Your task to perform on an android device: turn on notifications settings in the gmail app Image 0: 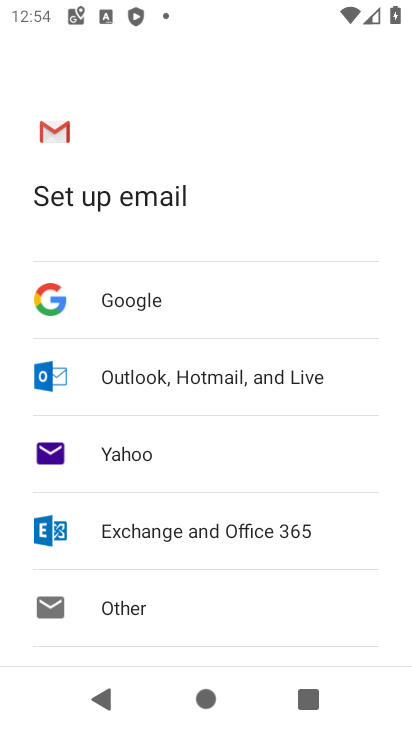
Step 0: press home button
Your task to perform on an android device: turn on notifications settings in the gmail app Image 1: 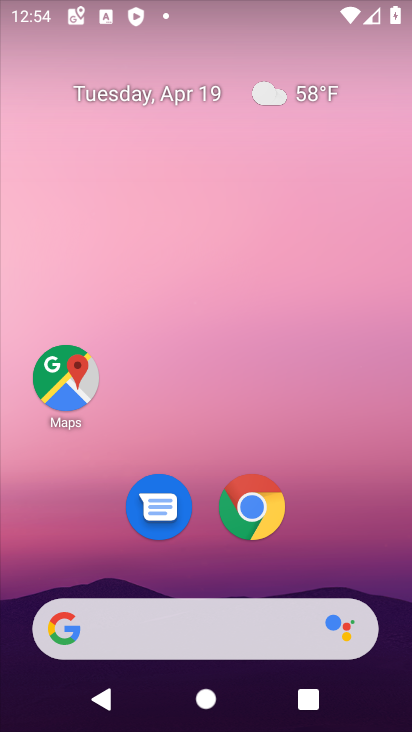
Step 1: drag from (187, 566) to (257, 81)
Your task to perform on an android device: turn on notifications settings in the gmail app Image 2: 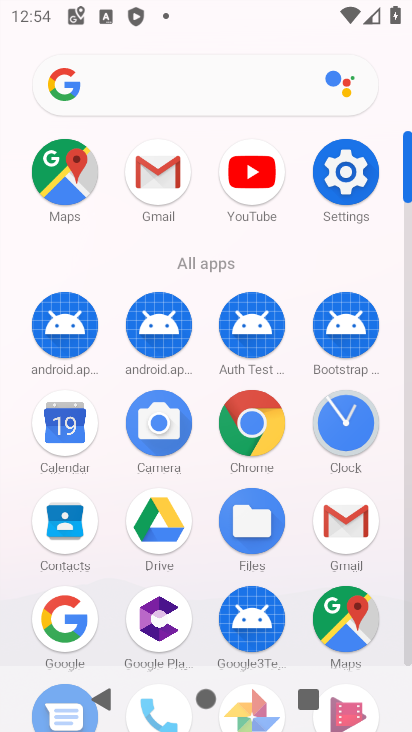
Step 2: click (344, 531)
Your task to perform on an android device: turn on notifications settings in the gmail app Image 3: 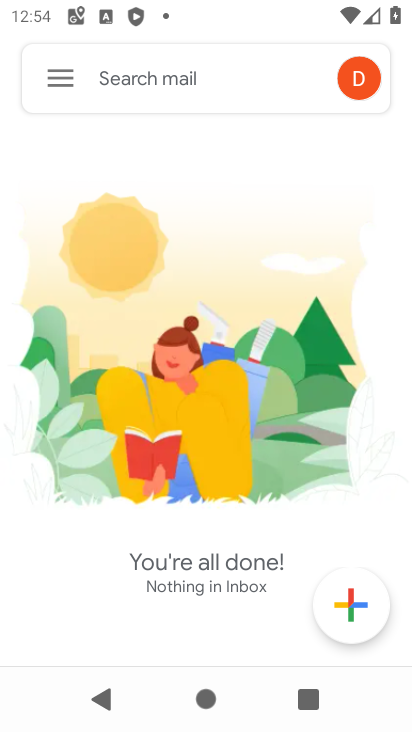
Step 3: click (59, 86)
Your task to perform on an android device: turn on notifications settings in the gmail app Image 4: 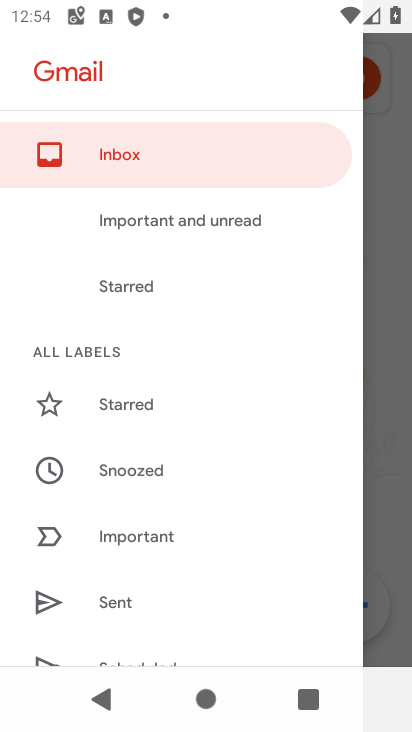
Step 4: drag from (193, 586) to (197, 78)
Your task to perform on an android device: turn on notifications settings in the gmail app Image 5: 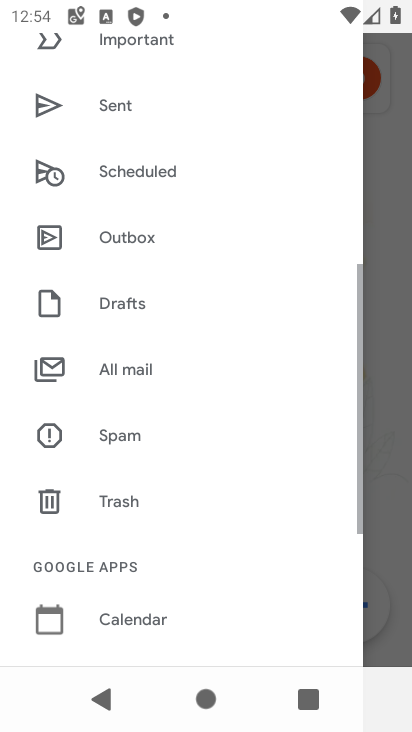
Step 5: drag from (210, 391) to (210, 239)
Your task to perform on an android device: turn on notifications settings in the gmail app Image 6: 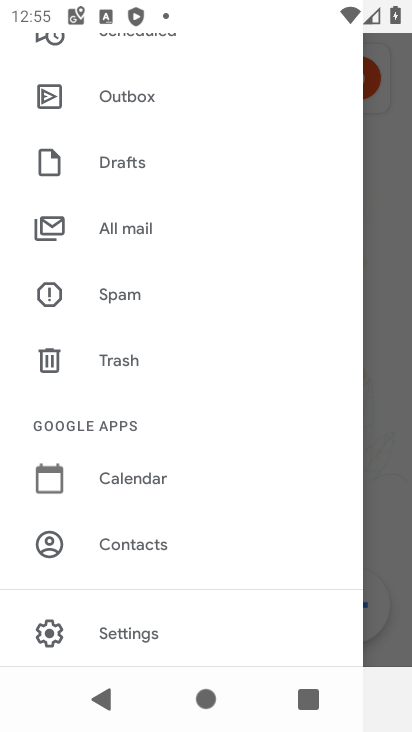
Step 6: click (164, 625)
Your task to perform on an android device: turn on notifications settings in the gmail app Image 7: 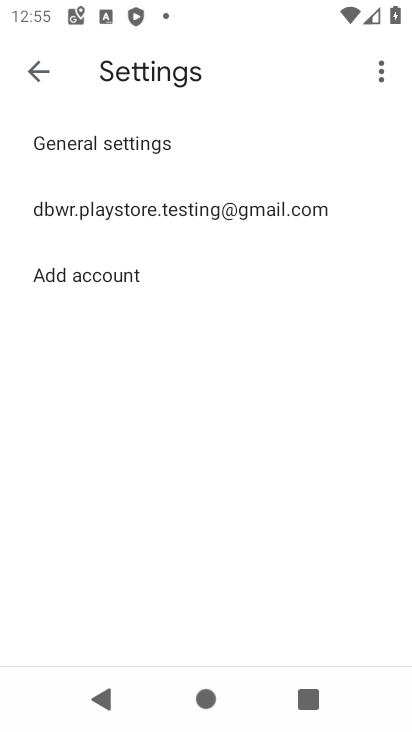
Step 7: click (152, 213)
Your task to perform on an android device: turn on notifications settings in the gmail app Image 8: 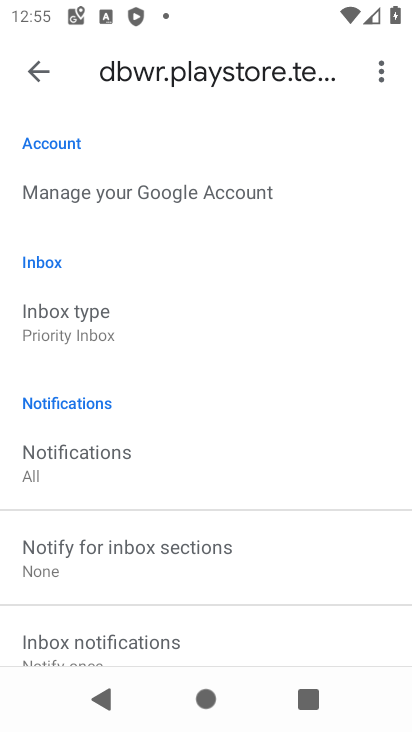
Step 8: drag from (154, 597) to (181, 431)
Your task to perform on an android device: turn on notifications settings in the gmail app Image 9: 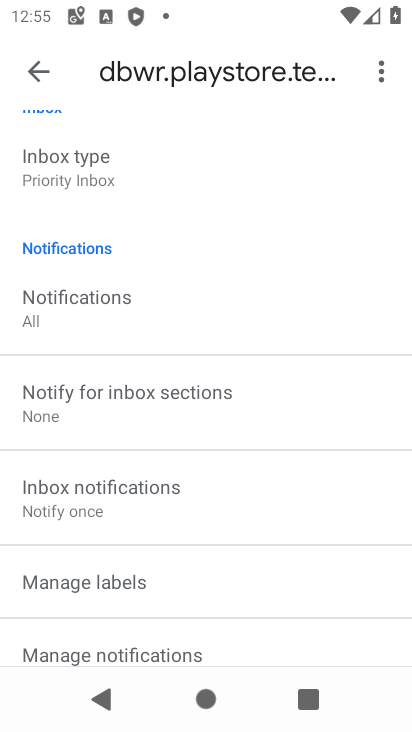
Step 9: click (167, 645)
Your task to perform on an android device: turn on notifications settings in the gmail app Image 10: 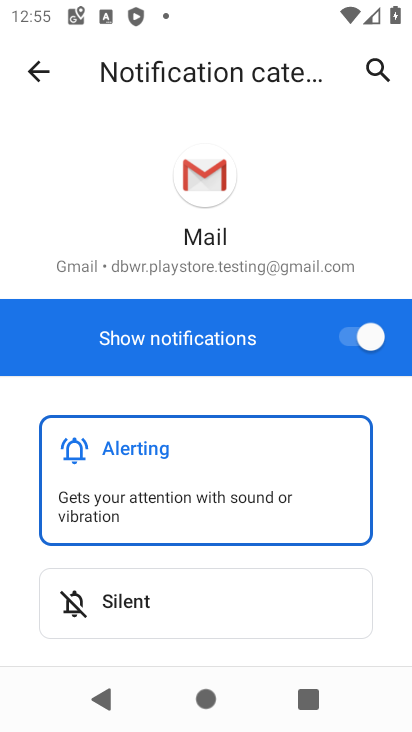
Step 10: task complete